Your task to perform on an android device: Open Google Chrome and click the shortcut for Amazon.com Image 0: 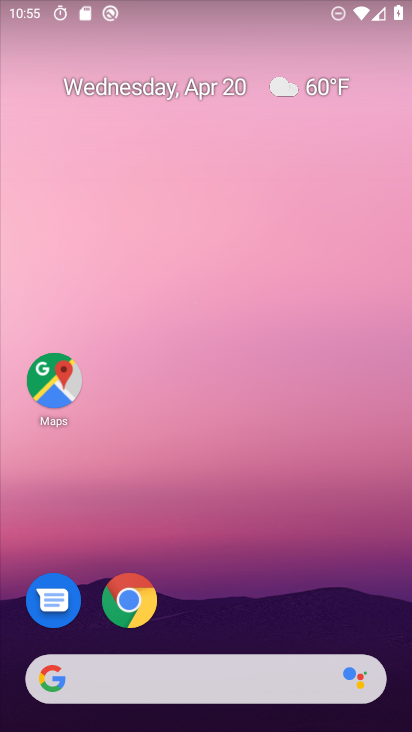
Step 0: click (133, 602)
Your task to perform on an android device: Open Google Chrome and click the shortcut for Amazon.com Image 1: 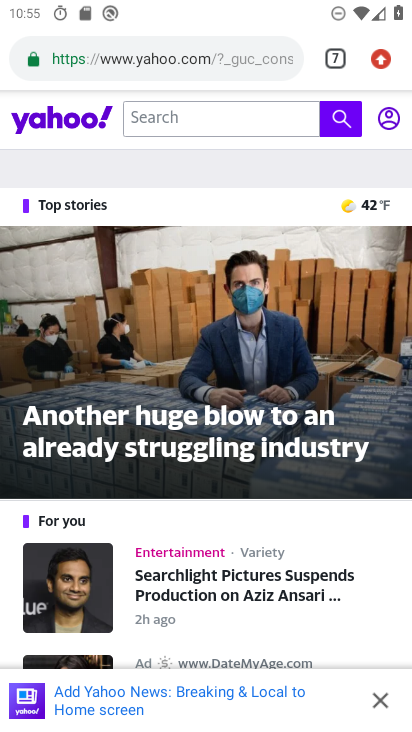
Step 1: click (331, 61)
Your task to perform on an android device: Open Google Chrome and click the shortcut for Amazon.com Image 2: 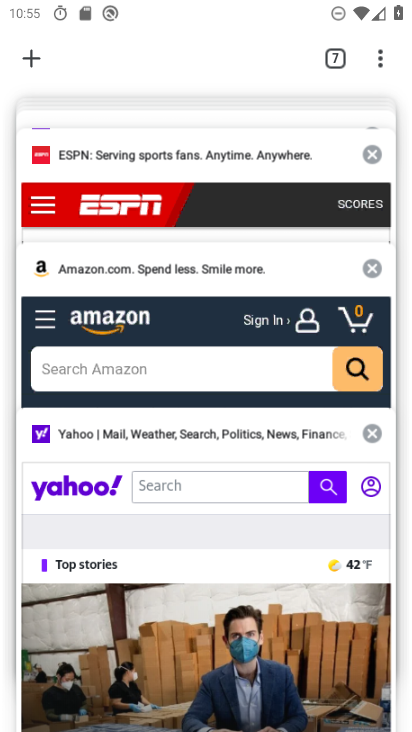
Step 2: click (27, 60)
Your task to perform on an android device: Open Google Chrome and click the shortcut for Amazon.com Image 3: 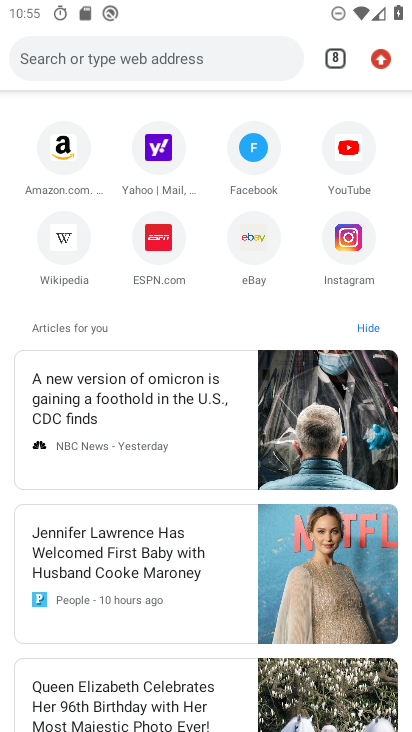
Step 3: click (71, 156)
Your task to perform on an android device: Open Google Chrome and click the shortcut for Amazon.com Image 4: 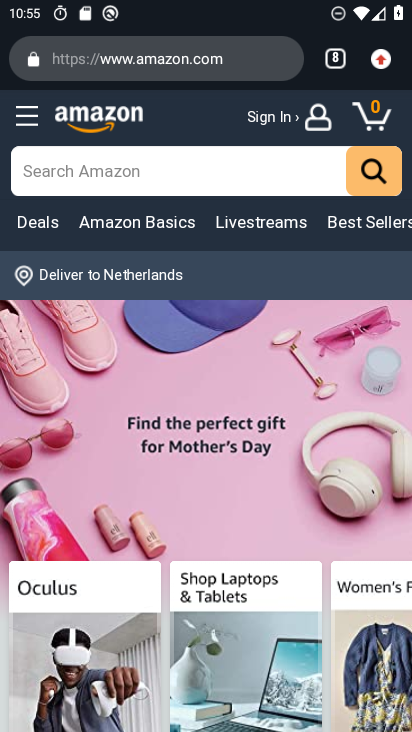
Step 4: task complete